Your task to perform on an android device: Open the calendar app, open the side menu, and click the "Day" option Image 0: 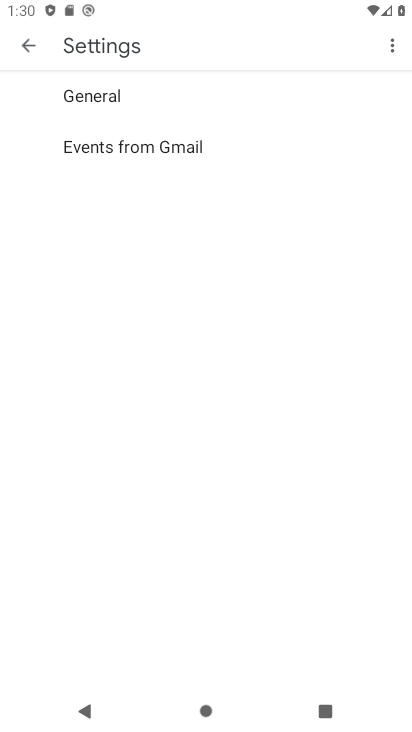
Step 0: press home button
Your task to perform on an android device: Open the calendar app, open the side menu, and click the "Day" option Image 1: 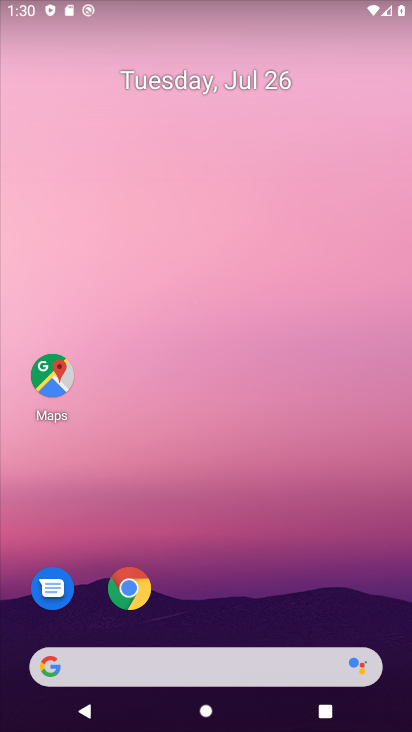
Step 1: drag from (207, 625) to (197, 46)
Your task to perform on an android device: Open the calendar app, open the side menu, and click the "Day" option Image 2: 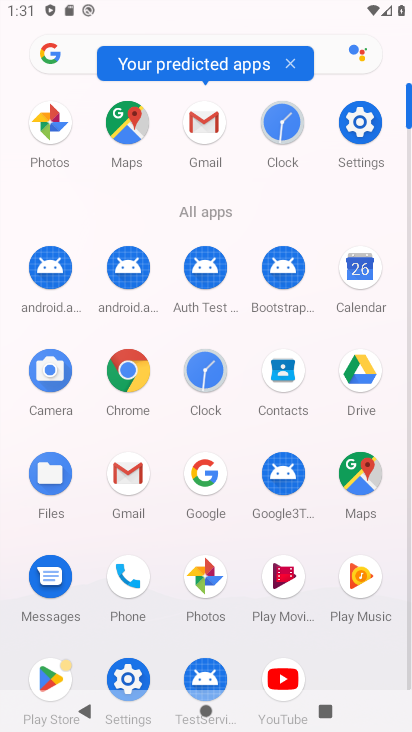
Step 2: click (368, 290)
Your task to perform on an android device: Open the calendar app, open the side menu, and click the "Day" option Image 3: 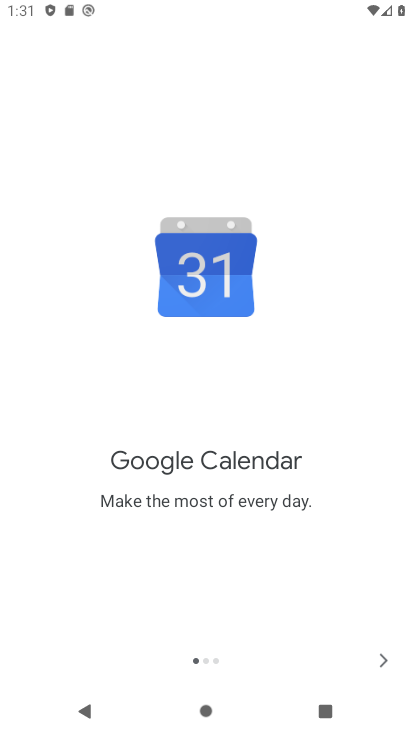
Step 3: click (379, 666)
Your task to perform on an android device: Open the calendar app, open the side menu, and click the "Day" option Image 4: 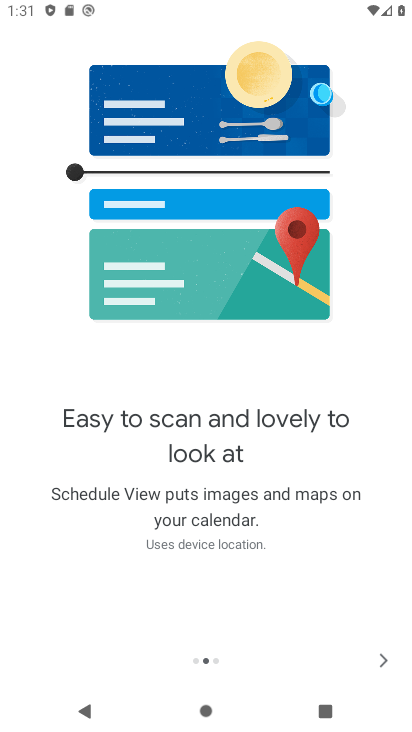
Step 4: click (379, 666)
Your task to perform on an android device: Open the calendar app, open the side menu, and click the "Day" option Image 5: 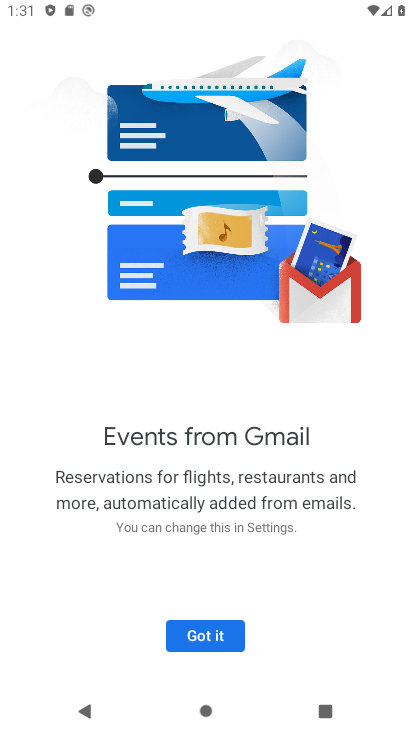
Step 5: click (183, 643)
Your task to perform on an android device: Open the calendar app, open the side menu, and click the "Day" option Image 6: 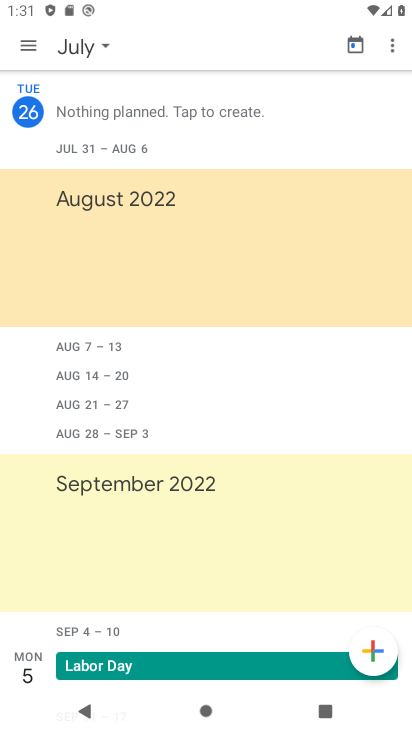
Step 6: click (29, 36)
Your task to perform on an android device: Open the calendar app, open the side menu, and click the "Day" option Image 7: 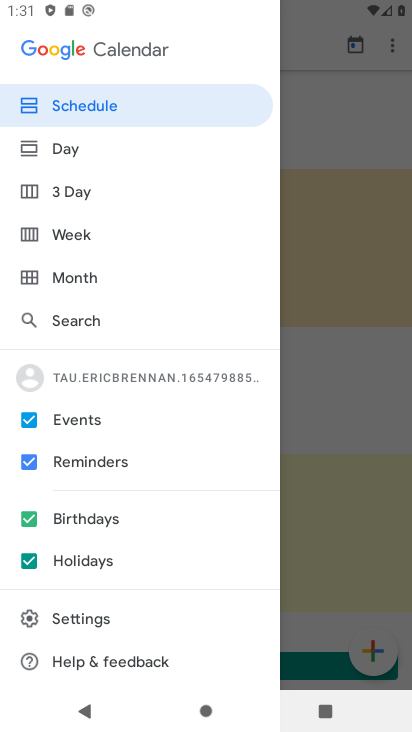
Step 7: click (59, 149)
Your task to perform on an android device: Open the calendar app, open the side menu, and click the "Day" option Image 8: 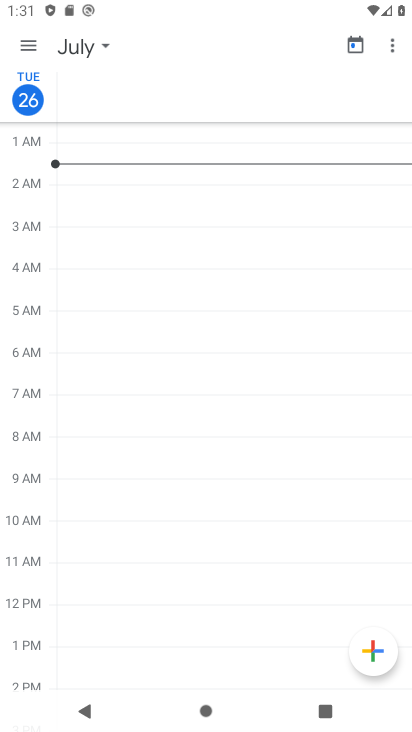
Step 8: task complete